Your task to perform on an android device: open sync settings in chrome Image 0: 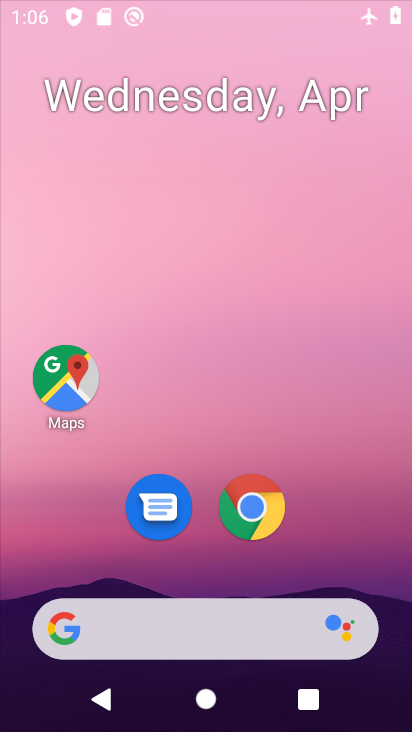
Step 0: drag from (229, 259) to (289, 73)
Your task to perform on an android device: open sync settings in chrome Image 1: 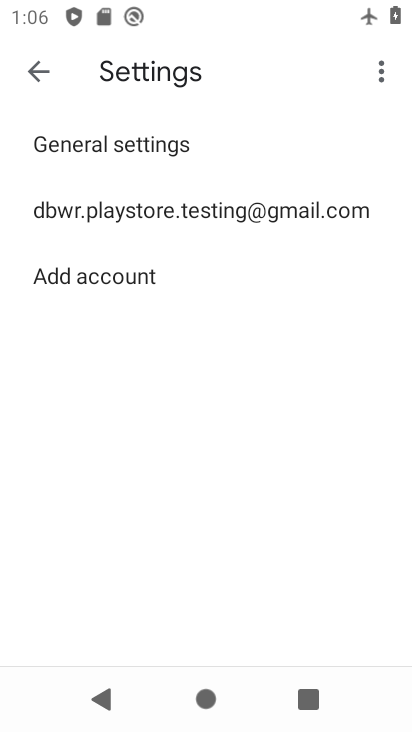
Step 1: press back button
Your task to perform on an android device: open sync settings in chrome Image 2: 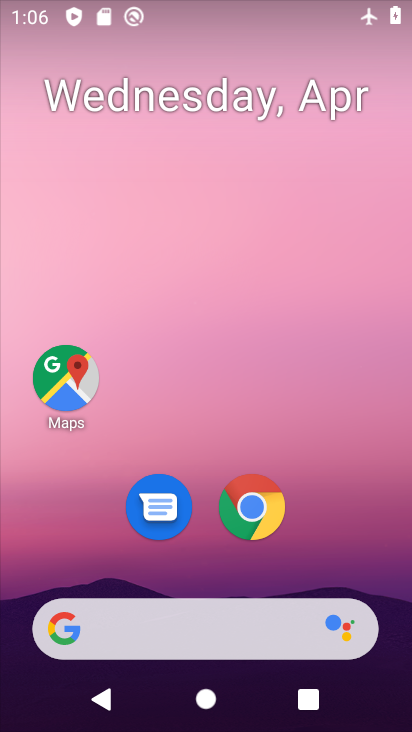
Step 2: click (259, 518)
Your task to perform on an android device: open sync settings in chrome Image 3: 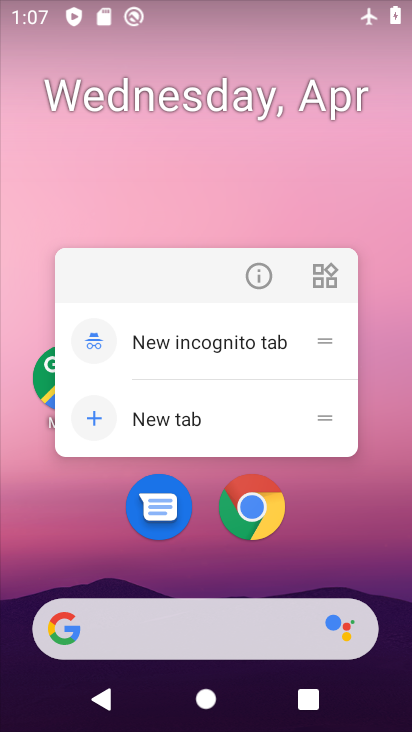
Step 3: click (256, 509)
Your task to perform on an android device: open sync settings in chrome Image 4: 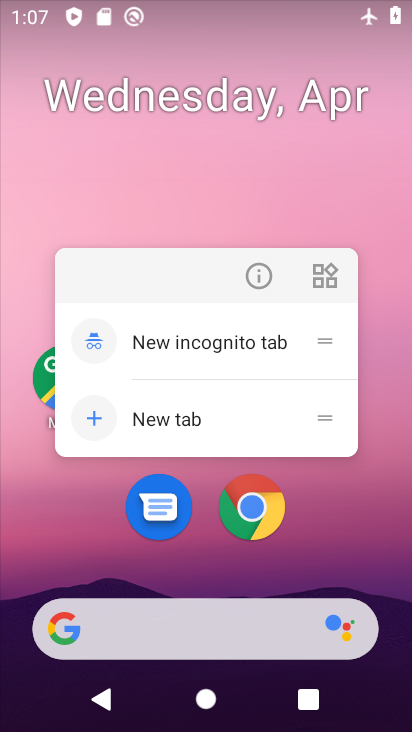
Step 4: click (235, 509)
Your task to perform on an android device: open sync settings in chrome Image 5: 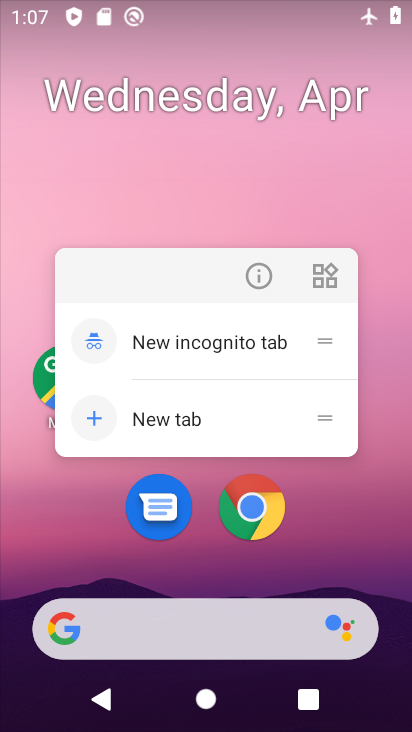
Step 5: click (260, 501)
Your task to perform on an android device: open sync settings in chrome Image 6: 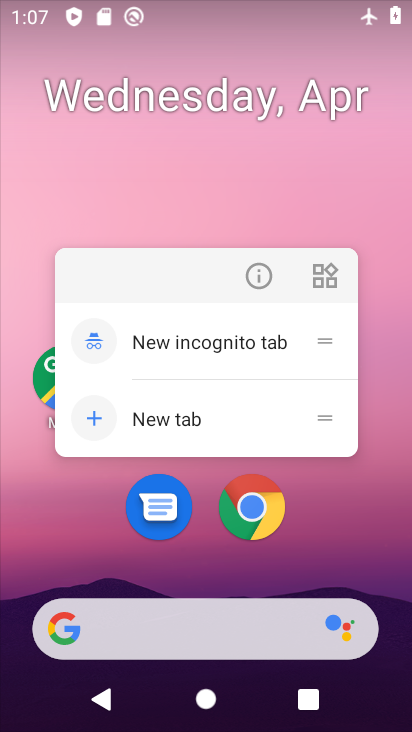
Step 6: click (250, 517)
Your task to perform on an android device: open sync settings in chrome Image 7: 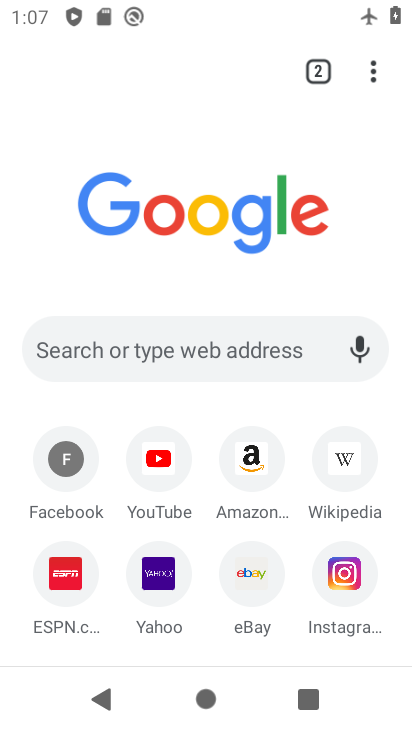
Step 7: drag from (384, 73) to (237, 507)
Your task to perform on an android device: open sync settings in chrome Image 8: 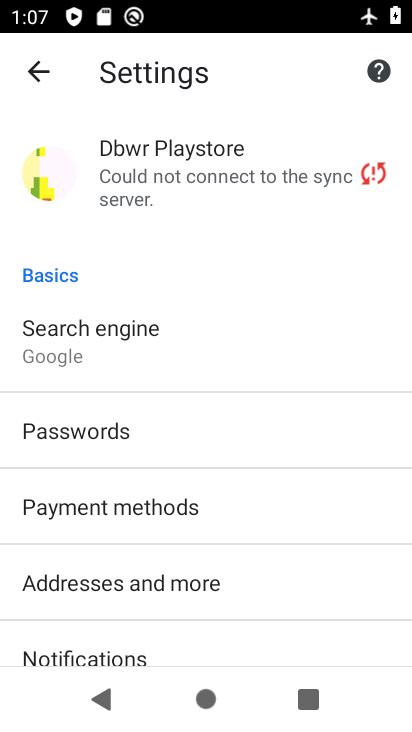
Step 8: click (266, 204)
Your task to perform on an android device: open sync settings in chrome Image 9: 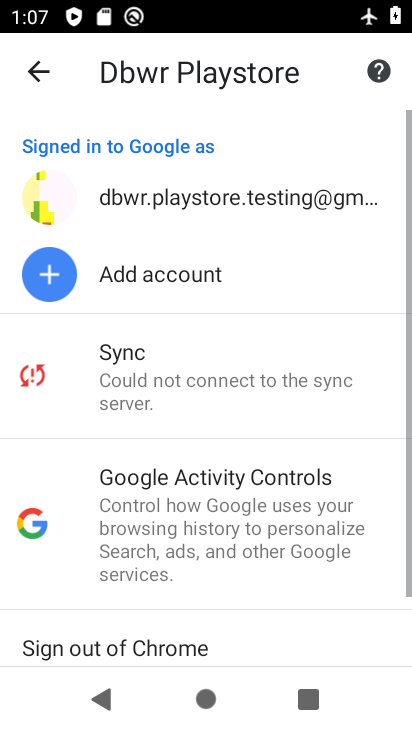
Step 9: click (243, 408)
Your task to perform on an android device: open sync settings in chrome Image 10: 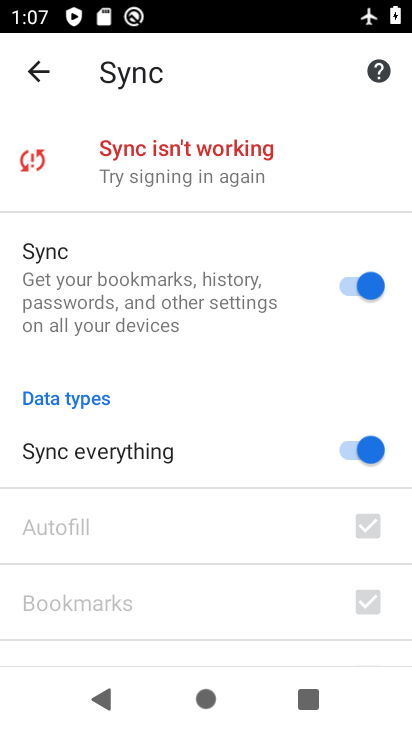
Step 10: task complete